Your task to perform on an android device: What's on my calendar tomorrow? Image 0: 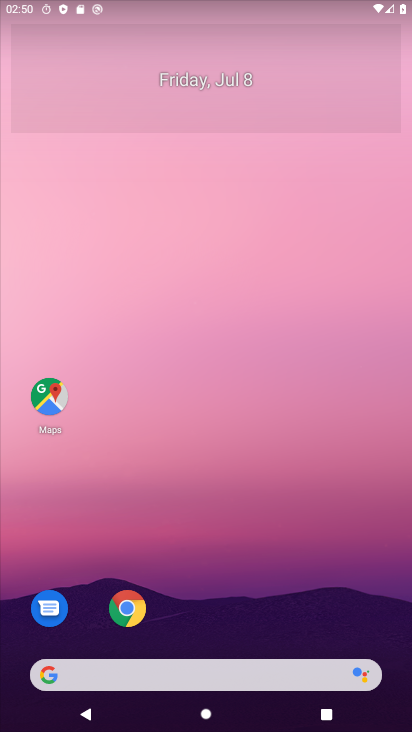
Step 0: drag from (213, 608) to (189, 155)
Your task to perform on an android device: What's on my calendar tomorrow? Image 1: 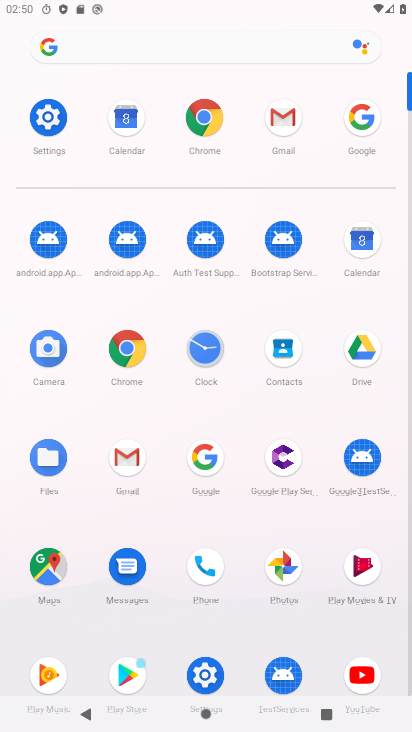
Step 1: click (367, 242)
Your task to perform on an android device: What's on my calendar tomorrow? Image 2: 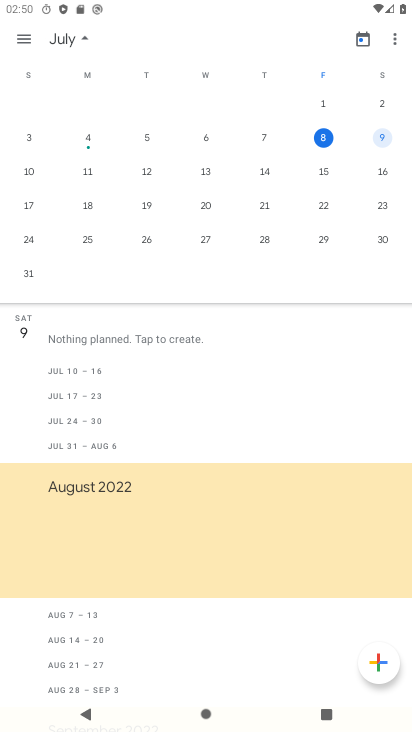
Step 2: click (381, 136)
Your task to perform on an android device: What's on my calendar tomorrow? Image 3: 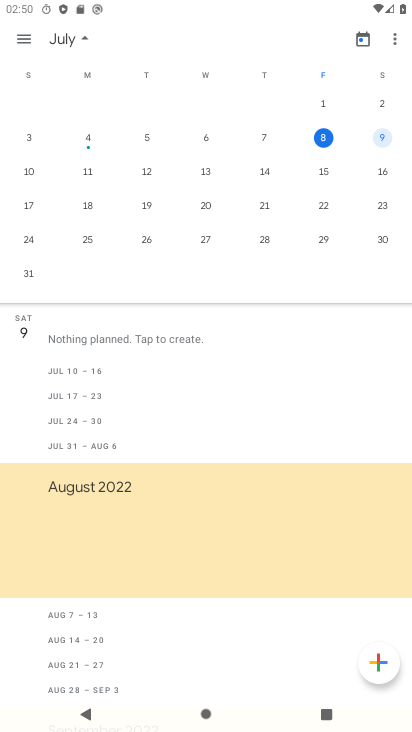
Step 3: task complete